Your task to perform on an android device: toggle javascript in the chrome app Image 0: 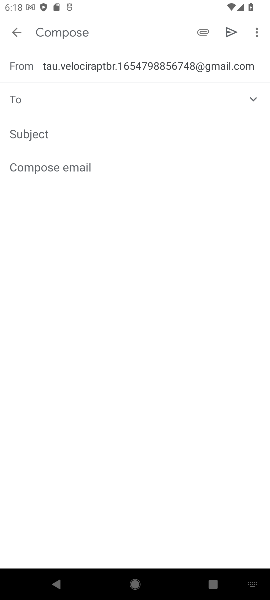
Step 0: press home button
Your task to perform on an android device: toggle javascript in the chrome app Image 1: 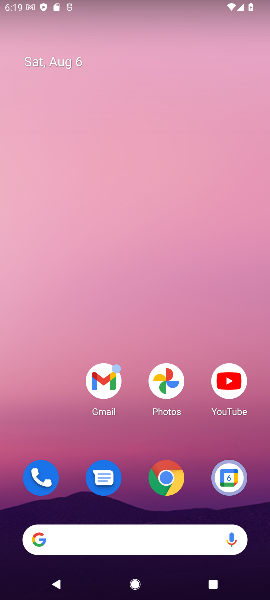
Step 1: click (173, 481)
Your task to perform on an android device: toggle javascript in the chrome app Image 2: 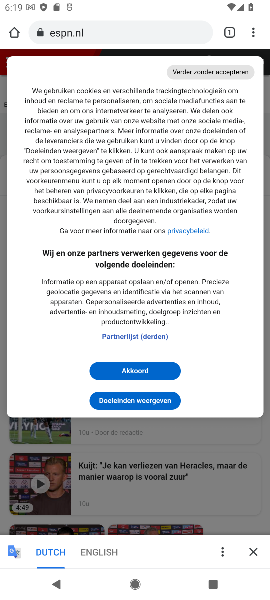
Step 2: click (260, 35)
Your task to perform on an android device: toggle javascript in the chrome app Image 3: 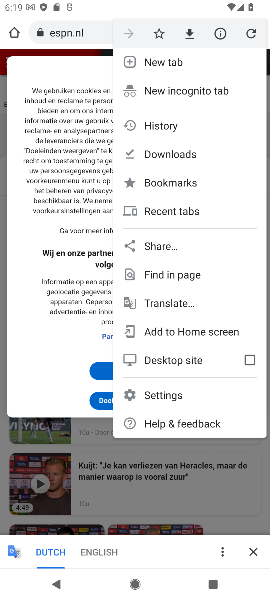
Step 3: click (173, 392)
Your task to perform on an android device: toggle javascript in the chrome app Image 4: 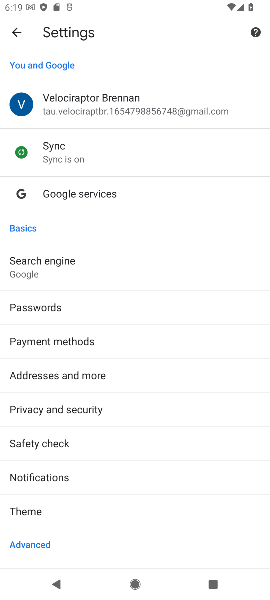
Step 4: drag from (77, 437) to (99, 298)
Your task to perform on an android device: toggle javascript in the chrome app Image 5: 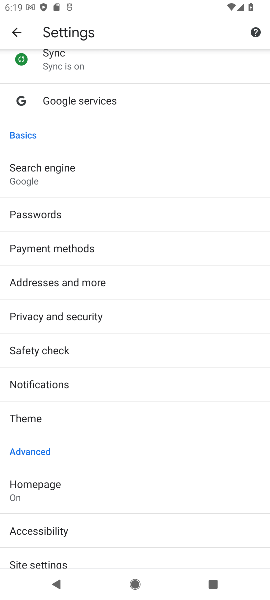
Step 5: drag from (35, 519) to (35, 304)
Your task to perform on an android device: toggle javascript in the chrome app Image 6: 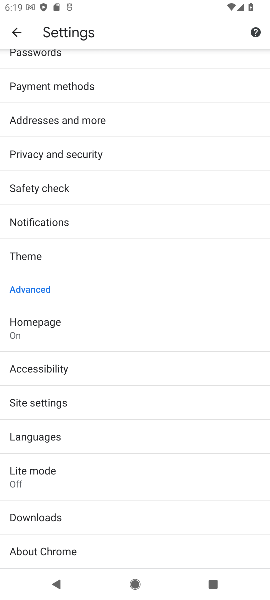
Step 6: click (40, 404)
Your task to perform on an android device: toggle javascript in the chrome app Image 7: 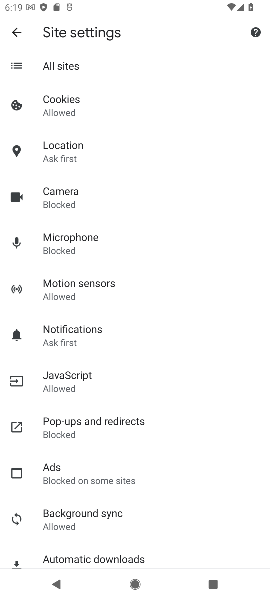
Step 7: click (52, 387)
Your task to perform on an android device: toggle javascript in the chrome app Image 8: 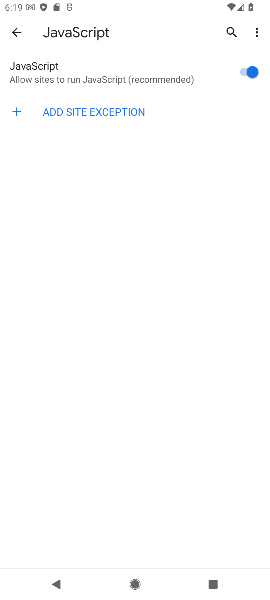
Step 8: click (234, 72)
Your task to perform on an android device: toggle javascript in the chrome app Image 9: 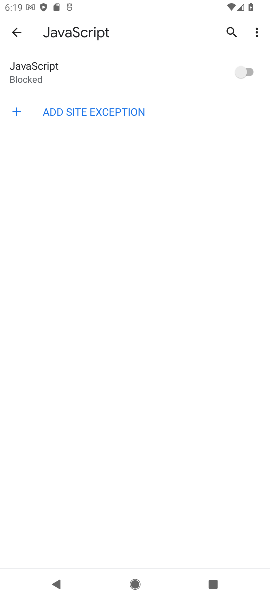
Step 9: task complete